Your task to perform on an android device: turn off smart reply in the gmail app Image 0: 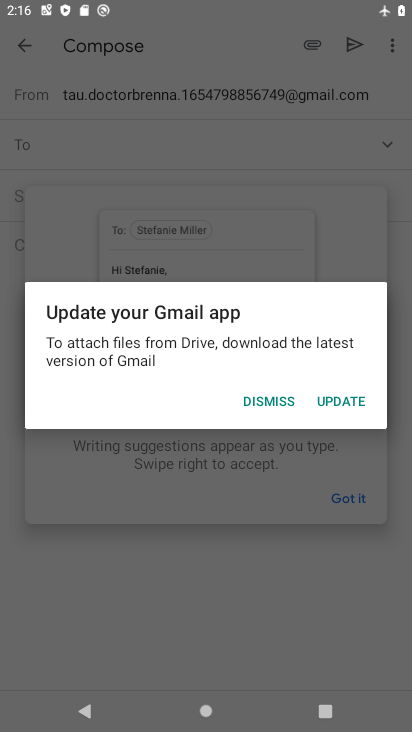
Step 0: press home button
Your task to perform on an android device: turn off smart reply in the gmail app Image 1: 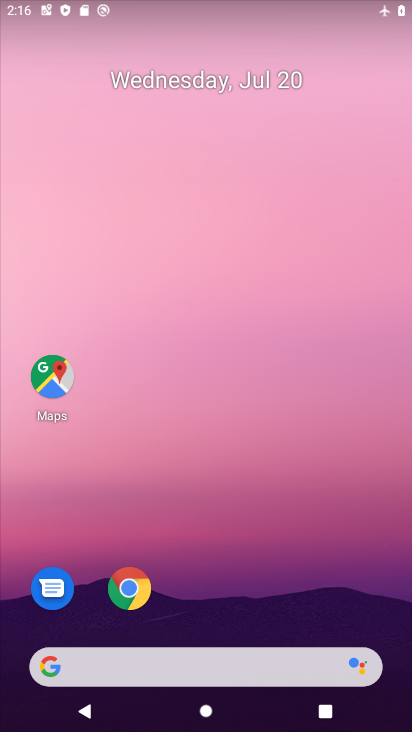
Step 1: drag from (238, 340) to (240, 43)
Your task to perform on an android device: turn off smart reply in the gmail app Image 2: 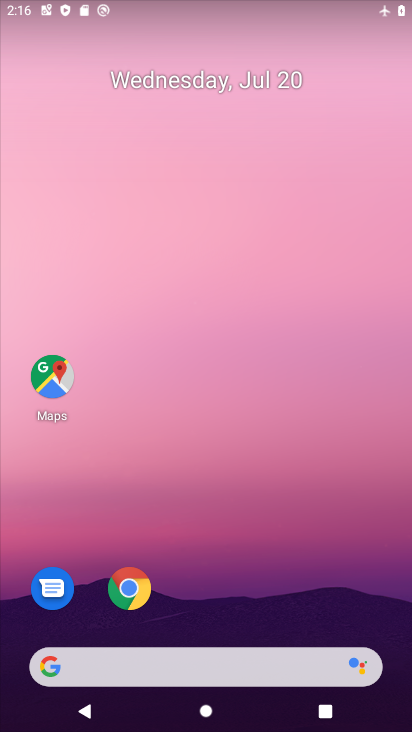
Step 2: drag from (295, 511) to (282, 0)
Your task to perform on an android device: turn off smart reply in the gmail app Image 3: 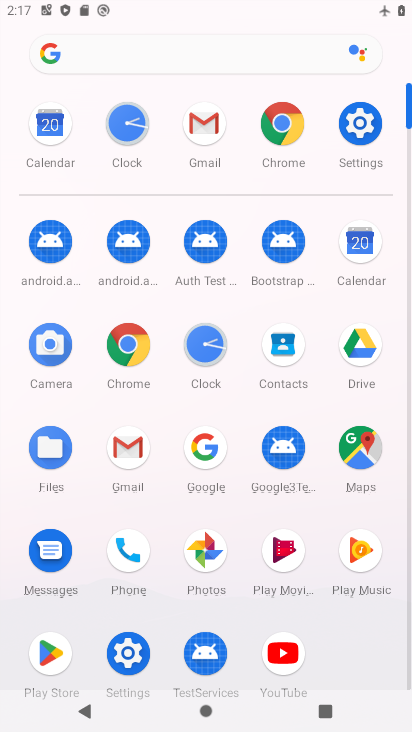
Step 3: click (192, 123)
Your task to perform on an android device: turn off smart reply in the gmail app Image 4: 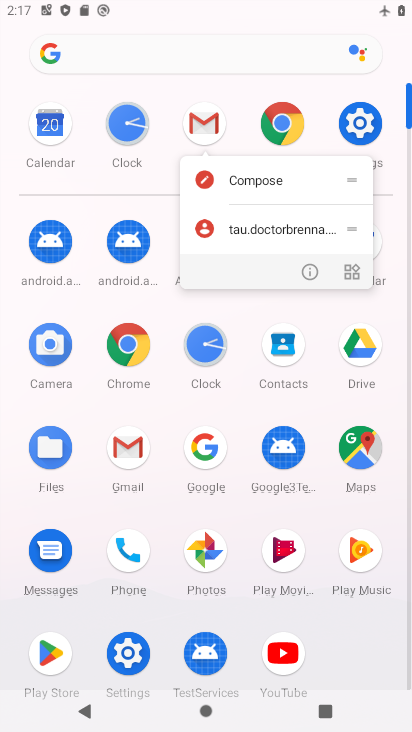
Step 4: click (192, 123)
Your task to perform on an android device: turn off smart reply in the gmail app Image 5: 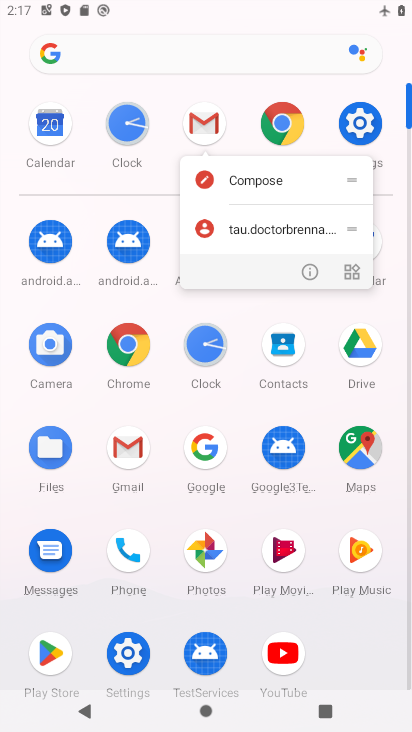
Step 5: click (192, 123)
Your task to perform on an android device: turn off smart reply in the gmail app Image 6: 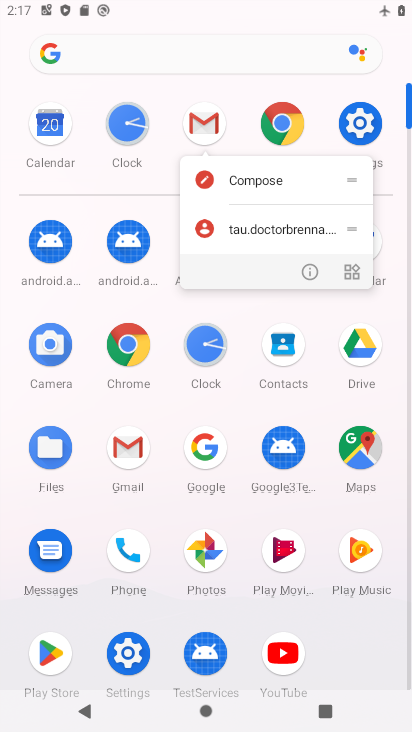
Step 6: click (192, 123)
Your task to perform on an android device: turn off smart reply in the gmail app Image 7: 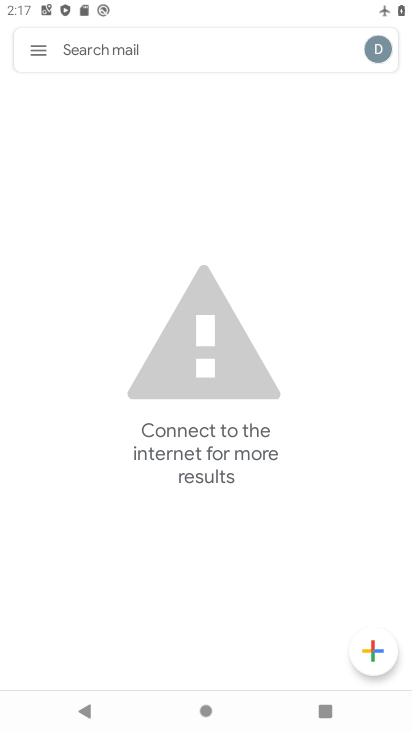
Step 7: click (34, 46)
Your task to perform on an android device: turn off smart reply in the gmail app Image 8: 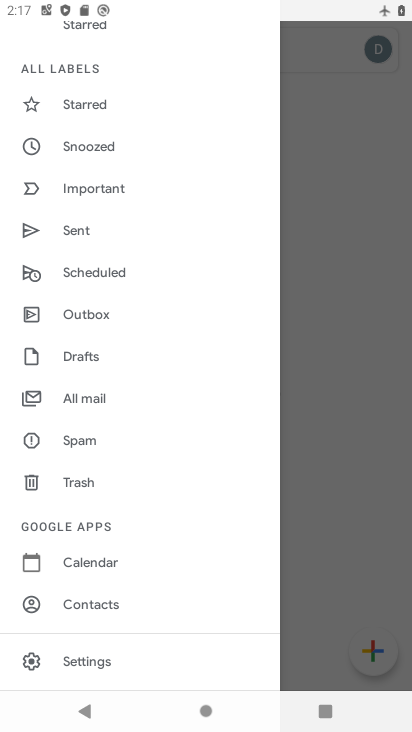
Step 8: drag from (114, 601) to (81, 100)
Your task to perform on an android device: turn off smart reply in the gmail app Image 9: 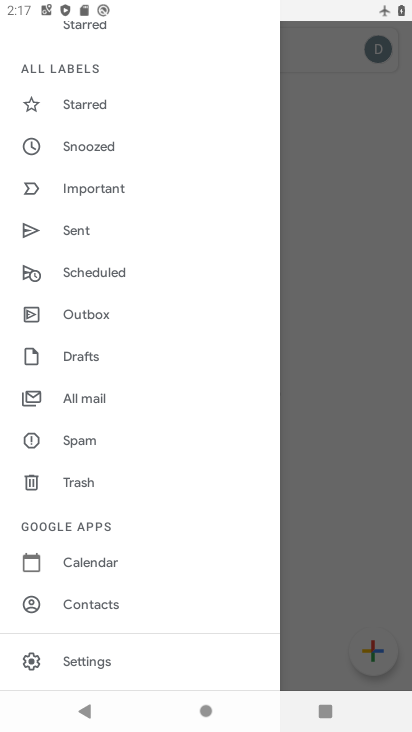
Step 9: click (84, 670)
Your task to perform on an android device: turn off smart reply in the gmail app Image 10: 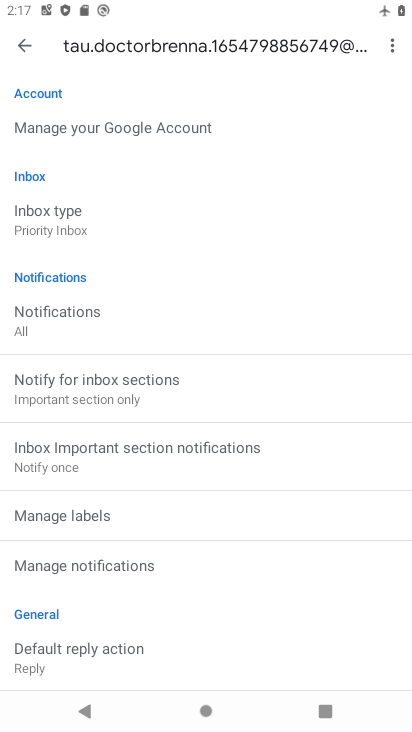
Step 10: drag from (78, 612) to (112, 107)
Your task to perform on an android device: turn off smart reply in the gmail app Image 11: 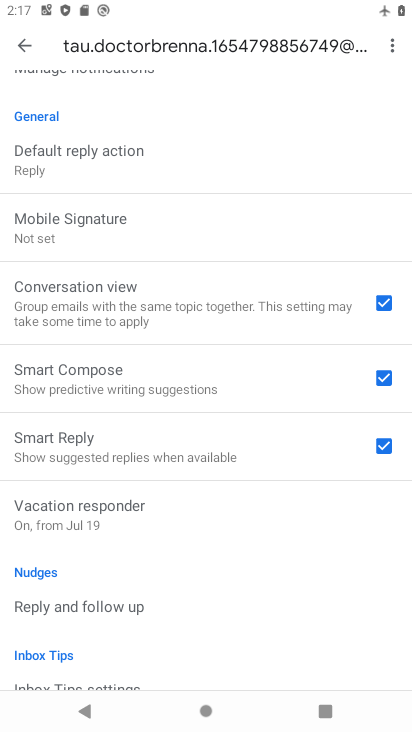
Step 11: click (380, 443)
Your task to perform on an android device: turn off smart reply in the gmail app Image 12: 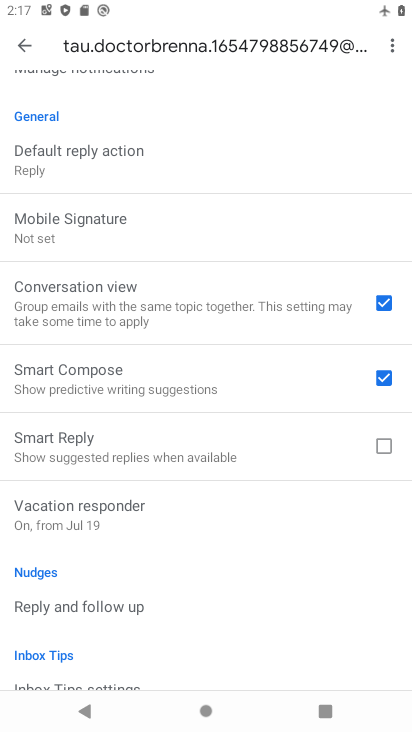
Step 12: task complete